Your task to perform on an android device: toggle pop-ups in chrome Image 0: 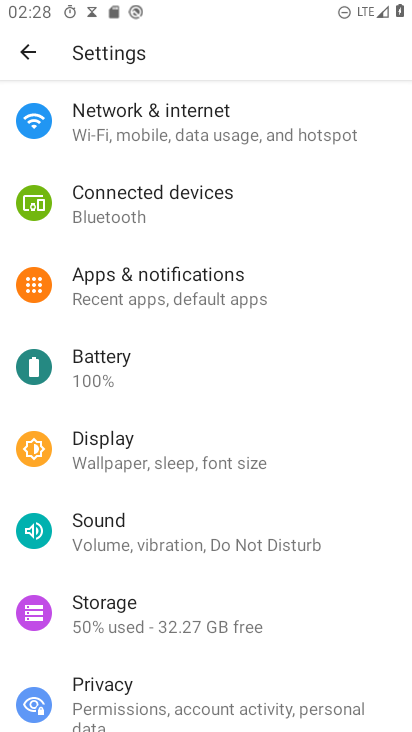
Step 0: press home button
Your task to perform on an android device: toggle pop-ups in chrome Image 1: 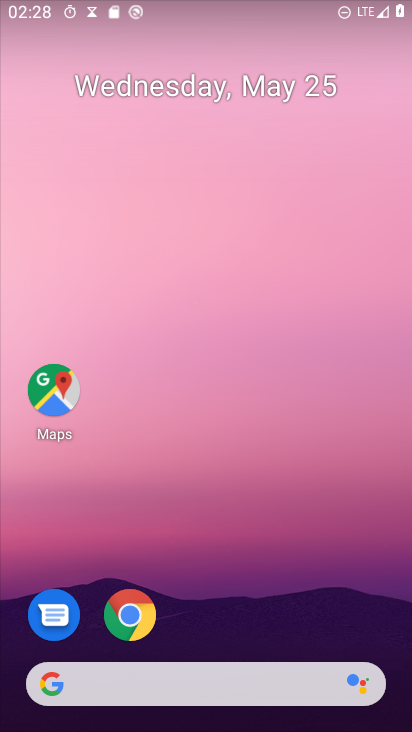
Step 1: drag from (244, 695) to (257, 189)
Your task to perform on an android device: toggle pop-ups in chrome Image 2: 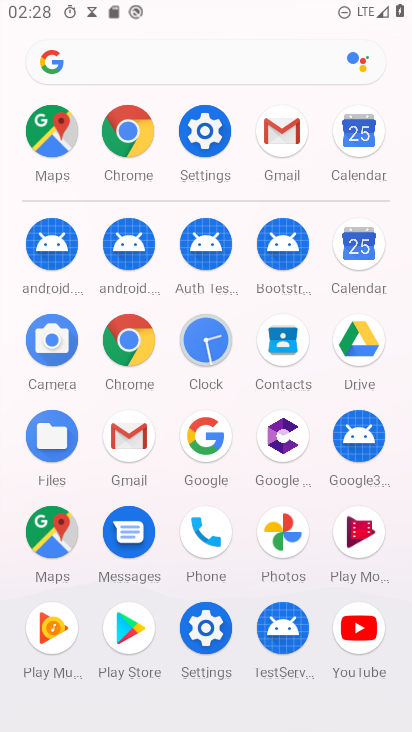
Step 2: click (120, 128)
Your task to perform on an android device: toggle pop-ups in chrome Image 3: 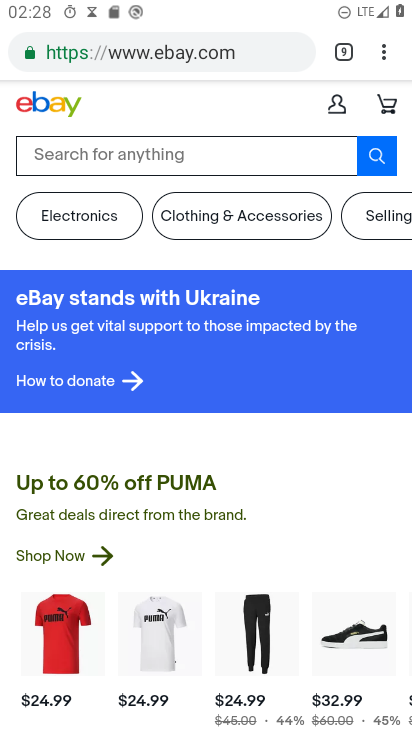
Step 3: click (381, 63)
Your task to perform on an android device: toggle pop-ups in chrome Image 4: 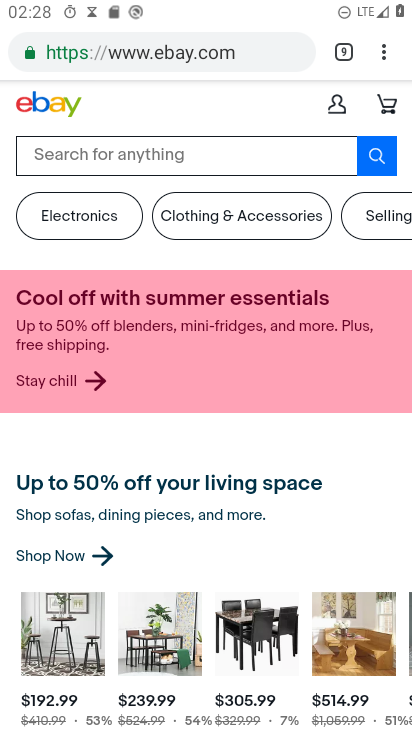
Step 4: click (387, 62)
Your task to perform on an android device: toggle pop-ups in chrome Image 5: 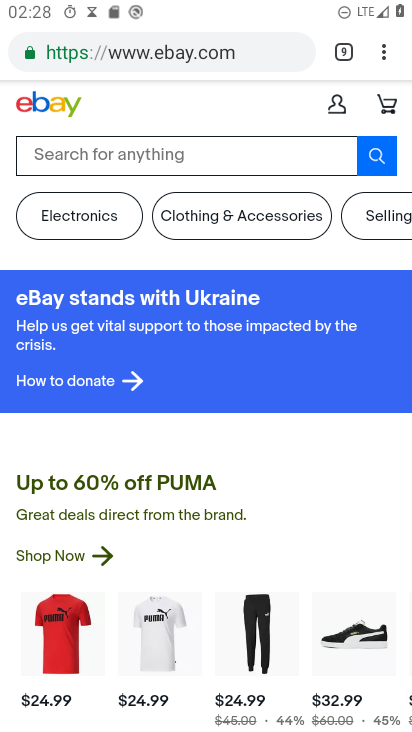
Step 5: click (387, 54)
Your task to perform on an android device: toggle pop-ups in chrome Image 6: 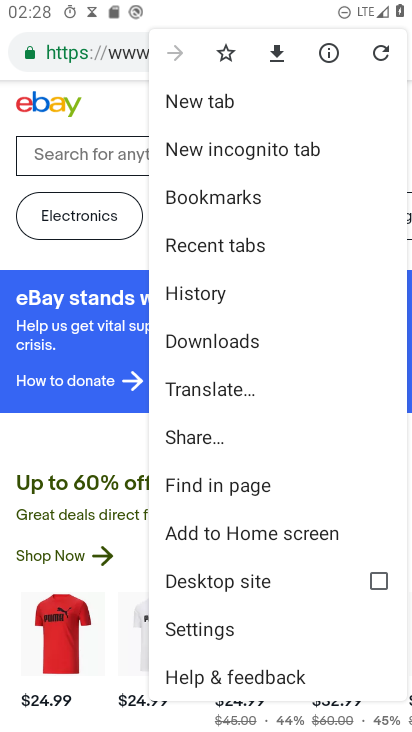
Step 6: click (257, 620)
Your task to perform on an android device: toggle pop-ups in chrome Image 7: 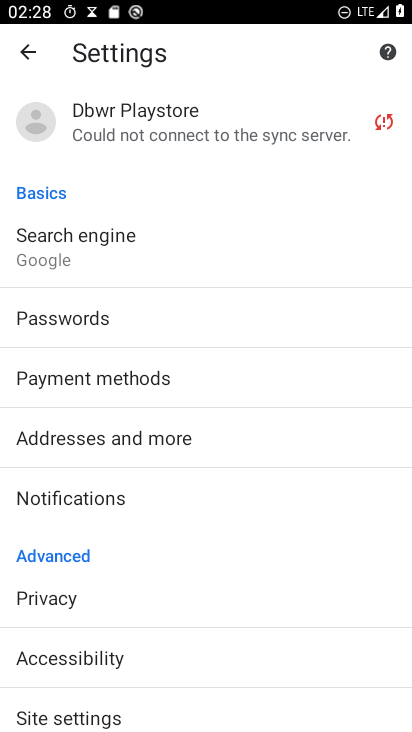
Step 7: drag from (98, 689) to (196, 449)
Your task to perform on an android device: toggle pop-ups in chrome Image 8: 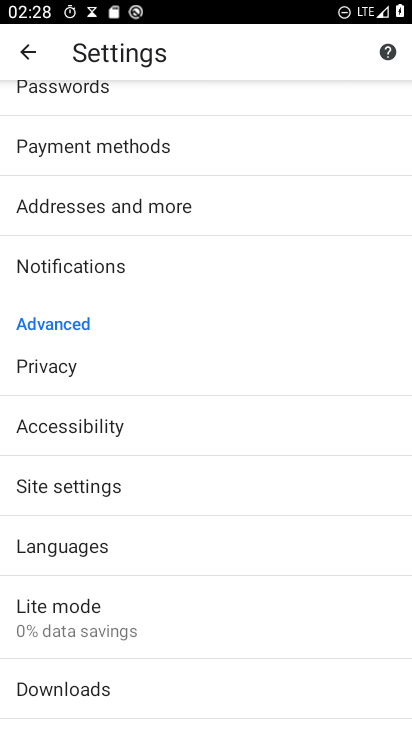
Step 8: click (87, 493)
Your task to perform on an android device: toggle pop-ups in chrome Image 9: 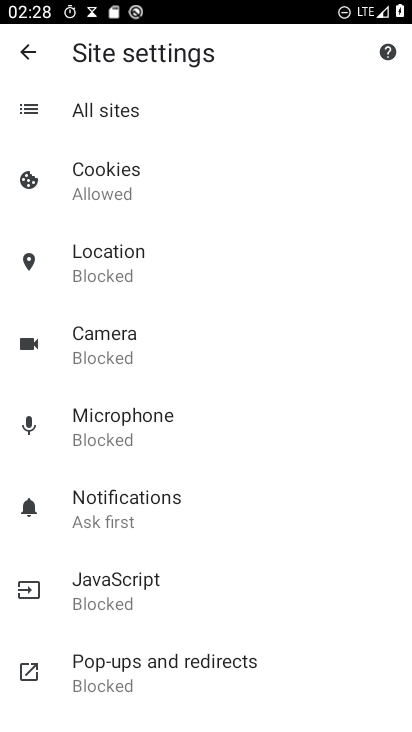
Step 9: click (146, 683)
Your task to perform on an android device: toggle pop-ups in chrome Image 10: 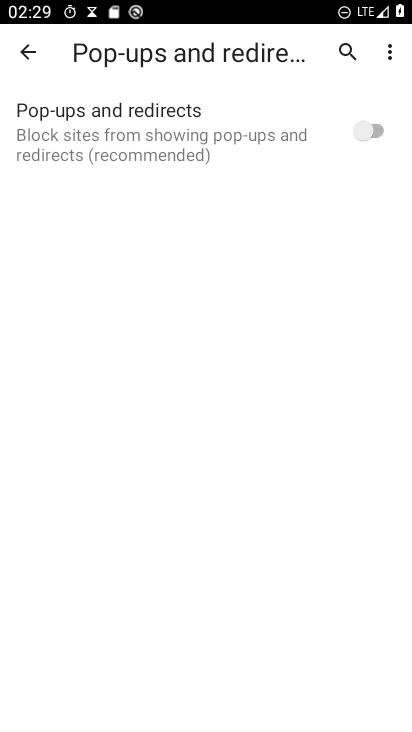
Step 10: click (369, 134)
Your task to perform on an android device: toggle pop-ups in chrome Image 11: 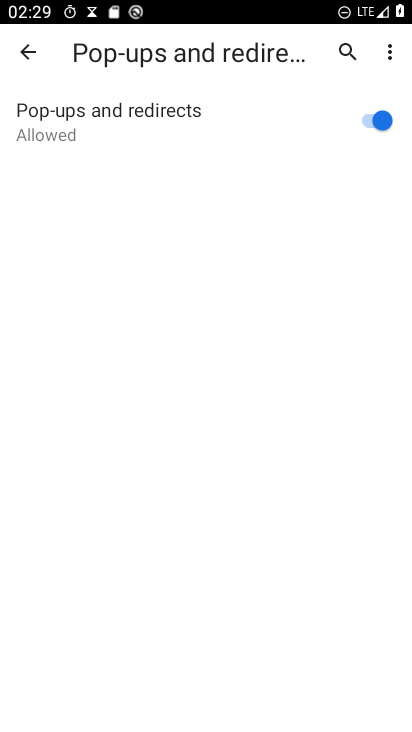
Step 11: click (369, 134)
Your task to perform on an android device: toggle pop-ups in chrome Image 12: 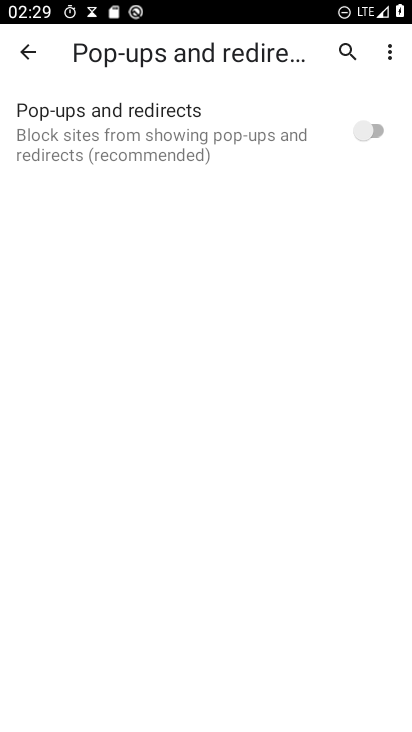
Step 12: task complete